Your task to perform on an android device: see tabs open on other devices in the chrome app Image 0: 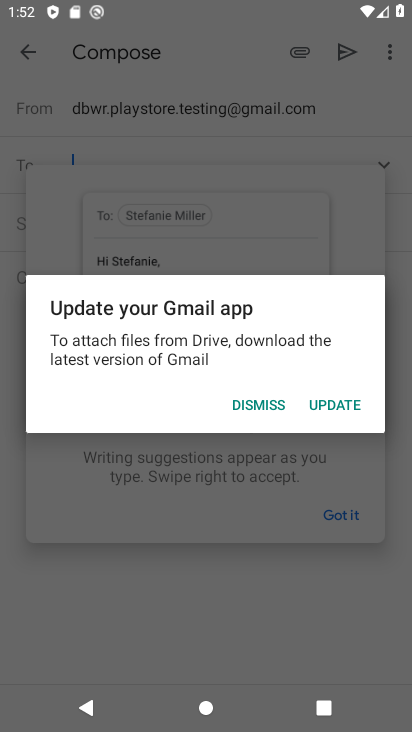
Step 0: press home button
Your task to perform on an android device: see tabs open on other devices in the chrome app Image 1: 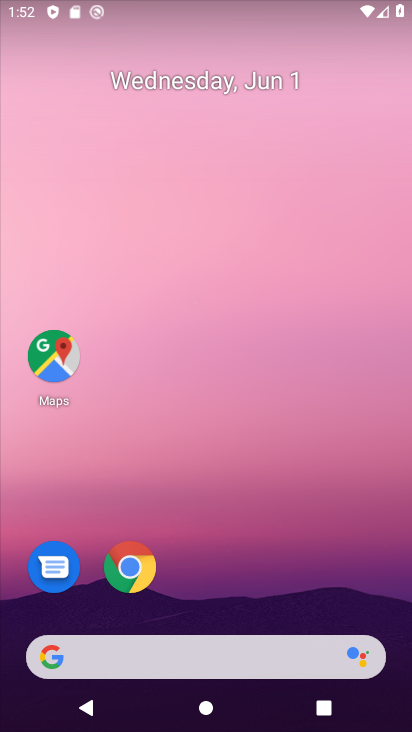
Step 1: click (132, 575)
Your task to perform on an android device: see tabs open on other devices in the chrome app Image 2: 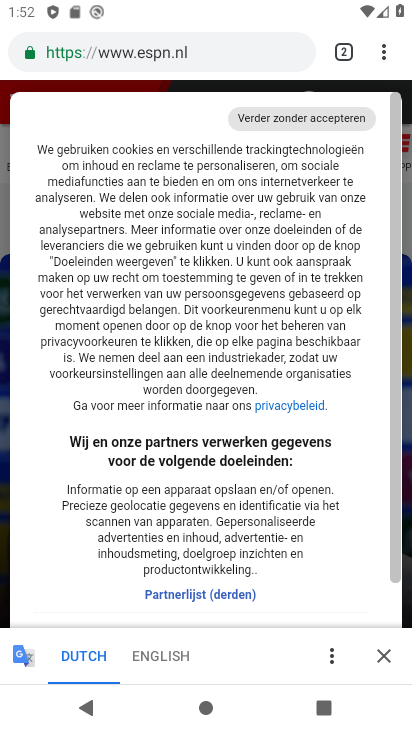
Step 2: click (383, 52)
Your task to perform on an android device: see tabs open on other devices in the chrome app Image 3: 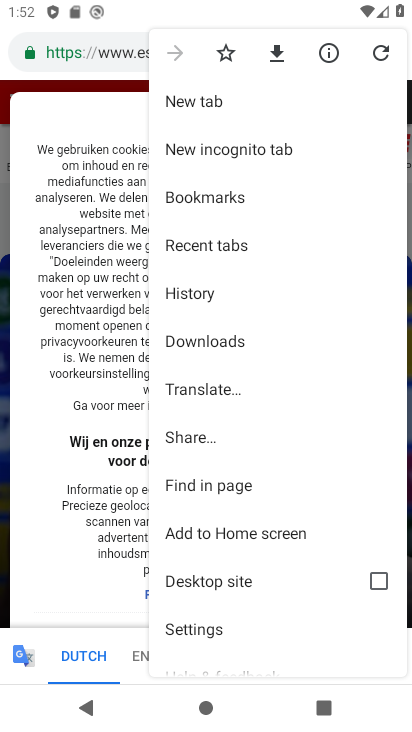
Step 3: click (196, 248)
Your task to perform on an android device: see tabs open on other devices in the chrome app Image 4: 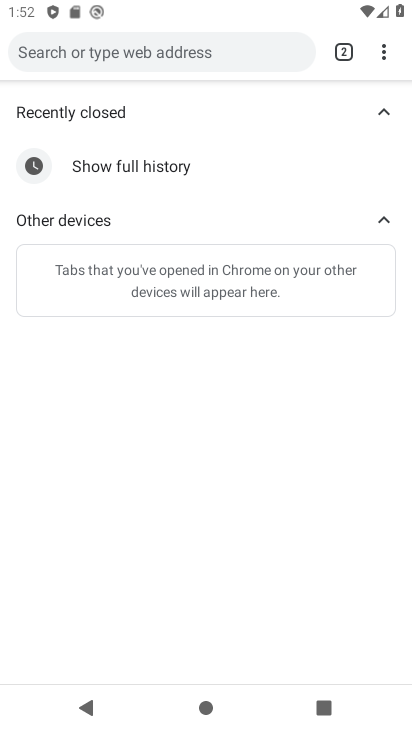
Step 4: task complete